Your task to perform on an android device: check the backup settings in the google photos Image 0: 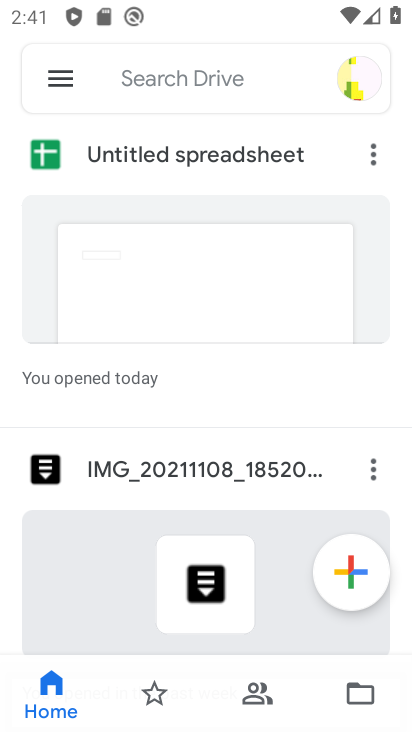
Step 0: press home button
Your task to perform on an android device: check the backup settings in the google photos Image 1: 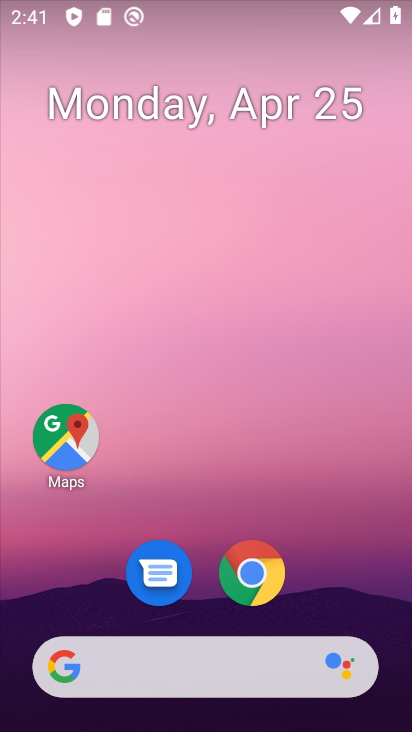
Step 1: drag from (330, 420) to (305, 90)
Your task to perform on an android device: check the backup settings in the google photos Image 2: 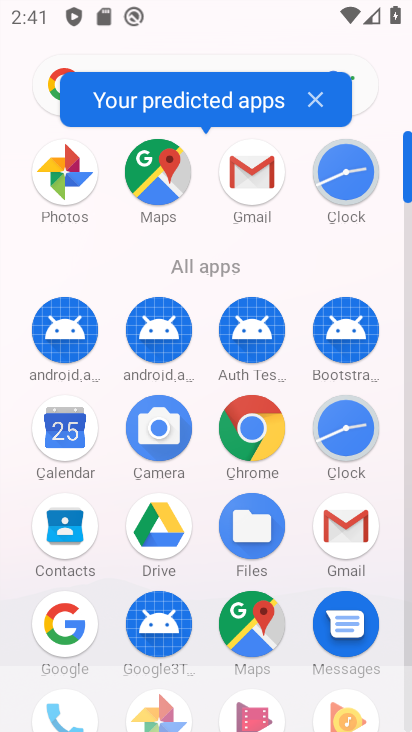
Step 2: click (70, 200)
Your task to perform on an android device: check the backup settings in the google photos Image 3: 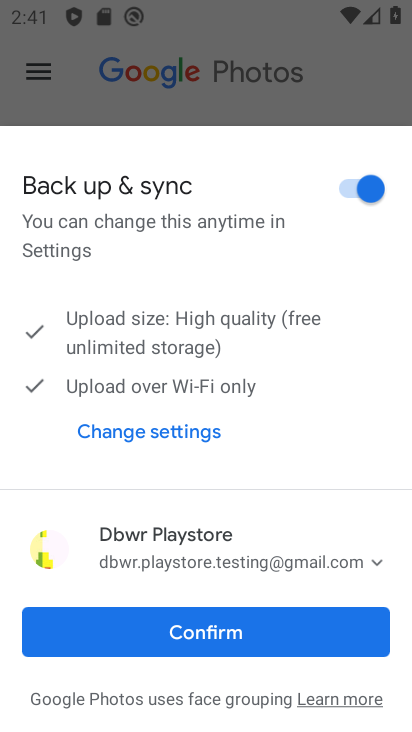
Step 3: click (202, 631)
Your task to perform on an android device: check the backup settings in the google photos Image 4: 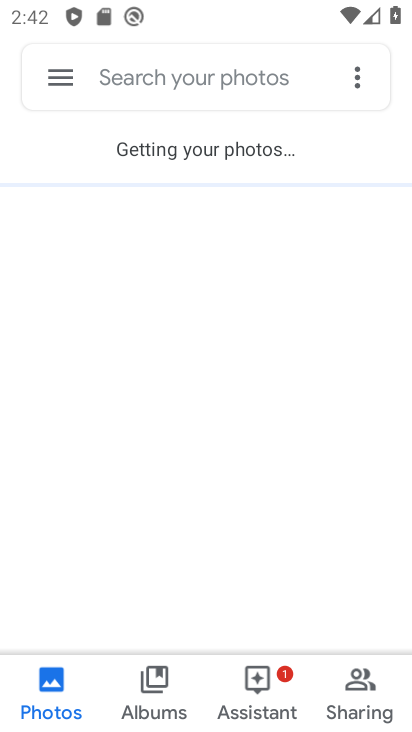
Step 4: click (76, 89)
Your task to perform on an android device: check the backup settings in the google photos Image 5: 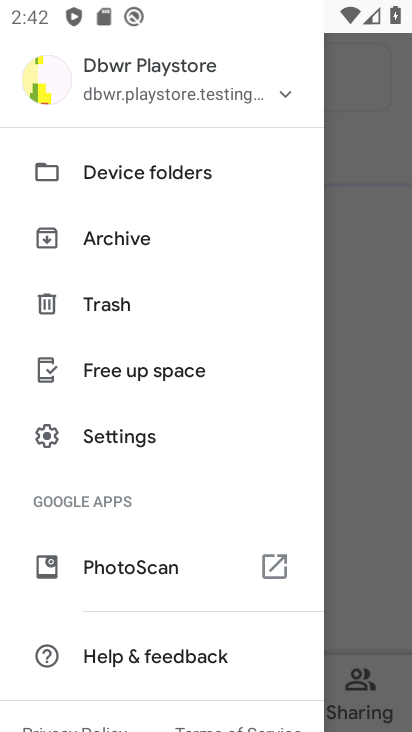
Step 5: click (118, 426)
Your task to perform on an android device: check the backup settings in the google photos Image 6: 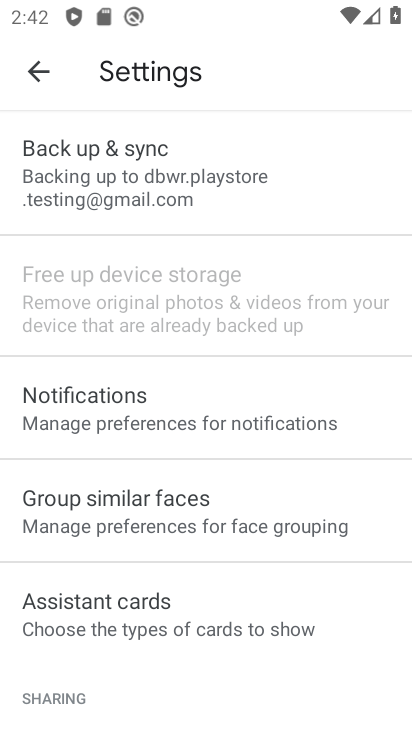
Step 6: click (99, 197)
Your task to perform on an android device: check the backup settings in the google photos Image 7: 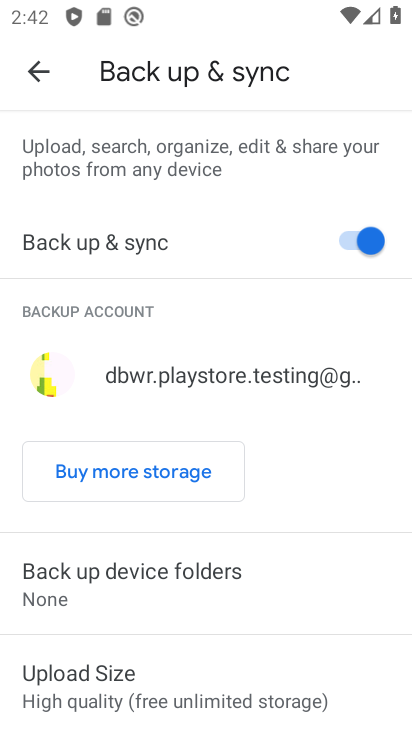
Step 7: task complete